Your task to perform on an android device: Is it going to rain this weekend? Image 0: 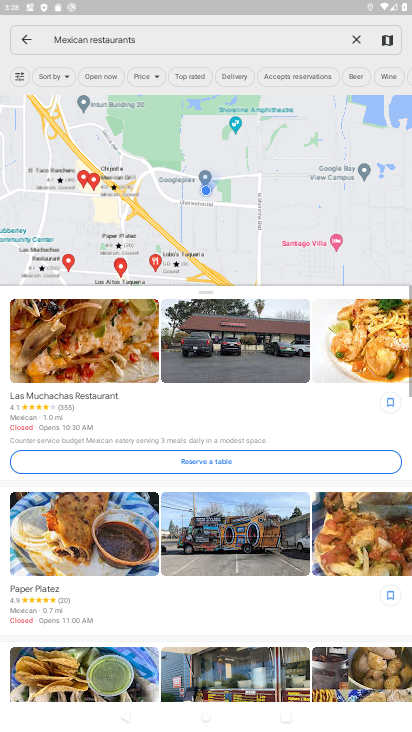
Step 0: press home button
Your task to perform on an android device: Is it going to rain this weekend? Image 1: 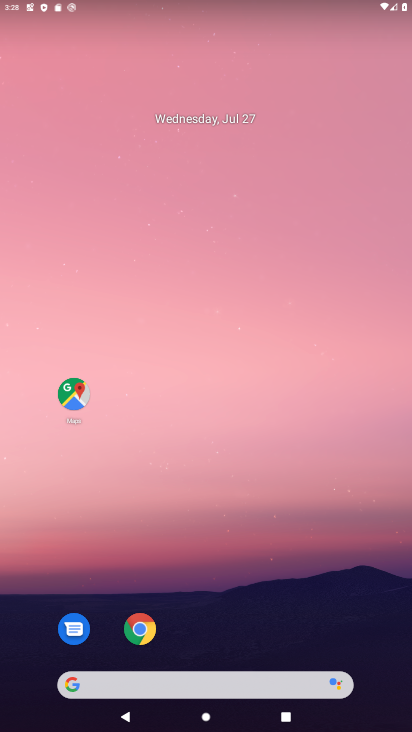
Step 1: drag from (360, 591) to (217, 6)
Your task to perform on an android device: Is it going to rain this weekend? Image 2: 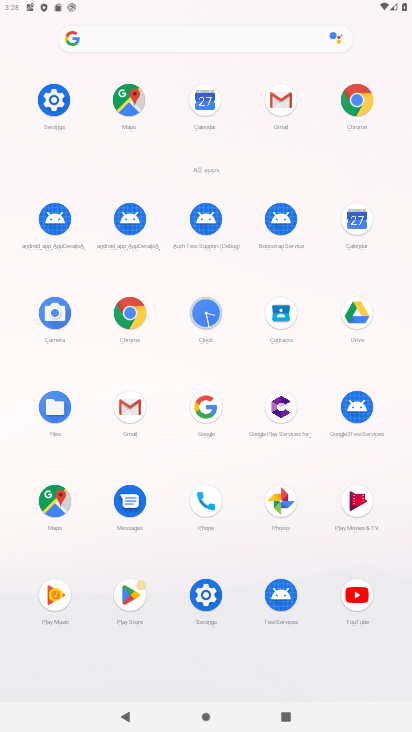
Step 2: click (357, 103)
Your task to perform on an android device: Is it going to rain this weekend? Image 3: 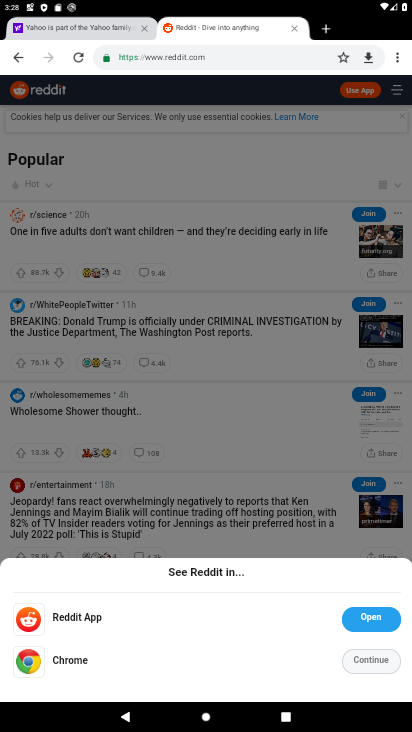
Step 3: click (196, 57)
Your task to perform on an android device: Is it going to rain this weekend? Image 4: 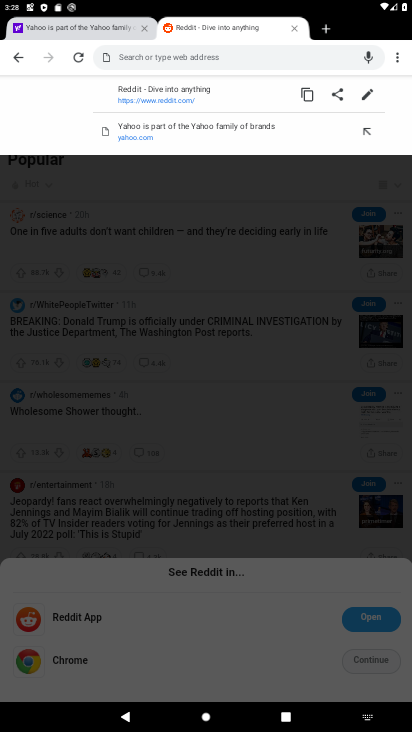
Step 4: type "weather"
Your task to perform on an android device: Is it going to rain this weekend? Image 5: 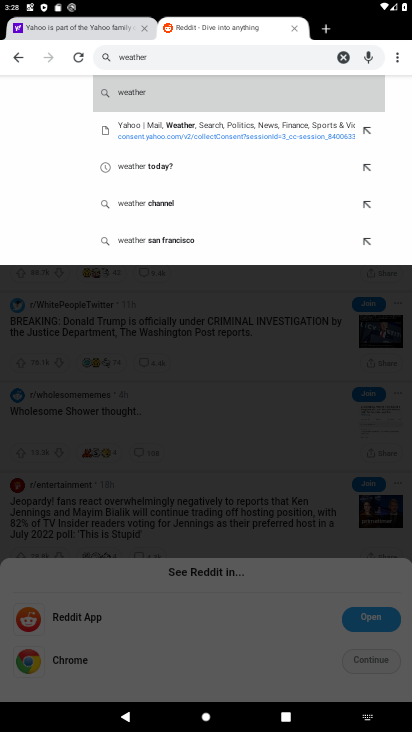
Step 5: click (157, 90)
Your task to perform on an android device: Is it going to rain this weekend? Image 6: 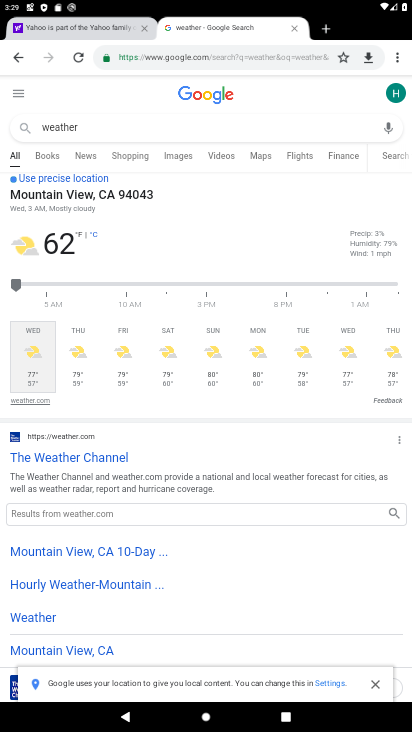
Step 6: click (163, 345)
Your task to perform on an android device: Is it going to rain this weekend? Image 7: 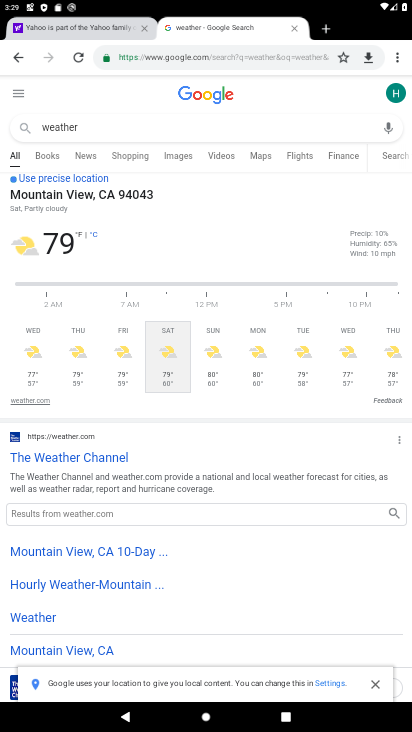
Step 7: task complete